Your task to perform on an android device: add a contact in the contacts app Image 0: 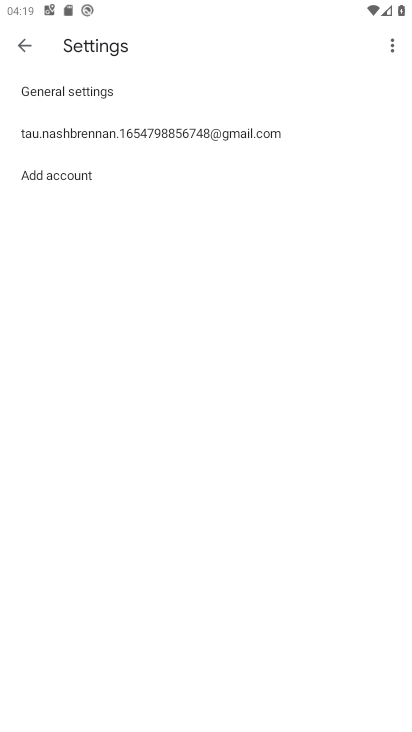
Step 0: press home button
Your task to perform on an android device: add a contact in the contacts app Image 1: 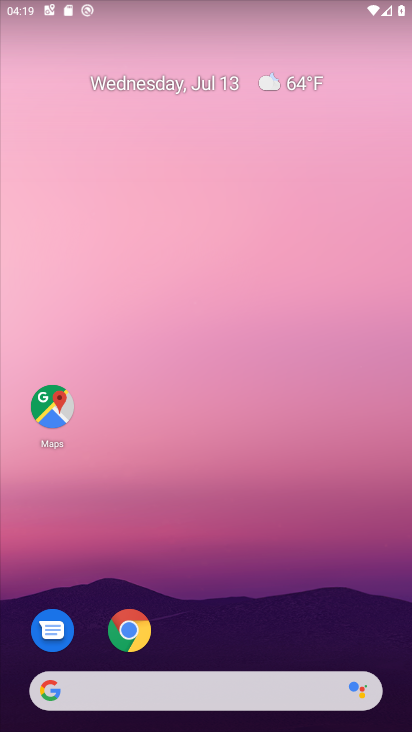
Step 1: drag from (175, 655) to (262, 104)
Your task to perform on an android device: add a contact in the contacts app Image 2: 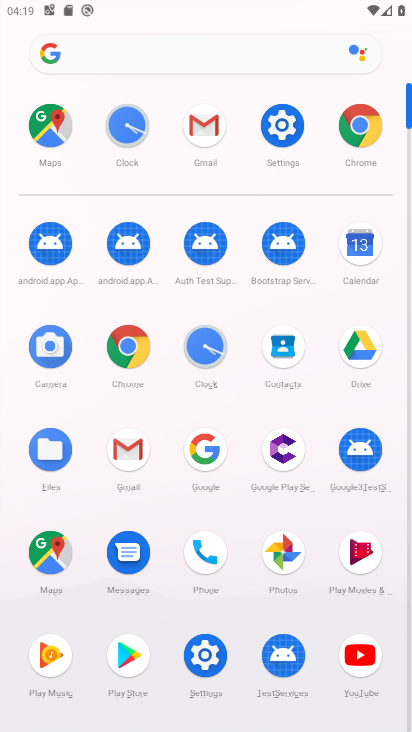
Step 2: click (289, 353)
Your task to perform on an android device: add a contact in the contacts app Image 3: 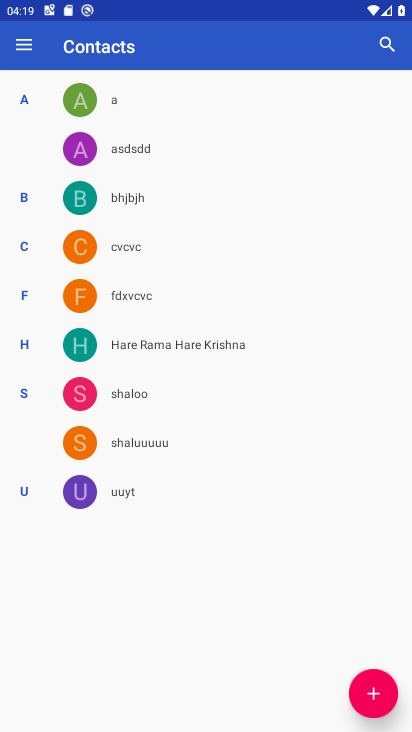
Step 3: click (363, 685)
Your task to perform on an android device: add a contact in the contacts app Image 4: 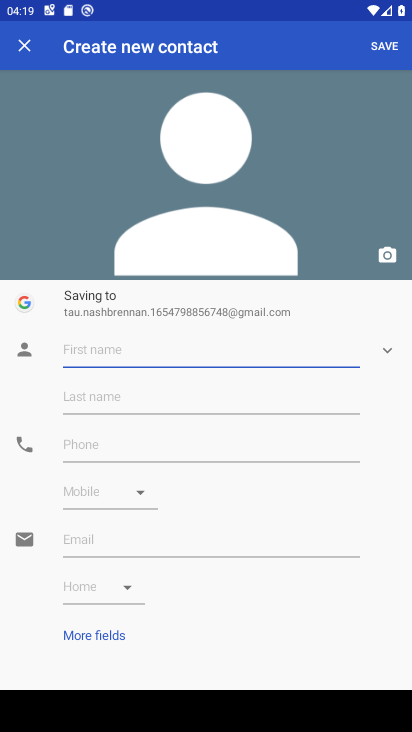
Step 4: type "radhe radhe"
Your task to perform on an android device: add a contact in the contacts app Image 5: 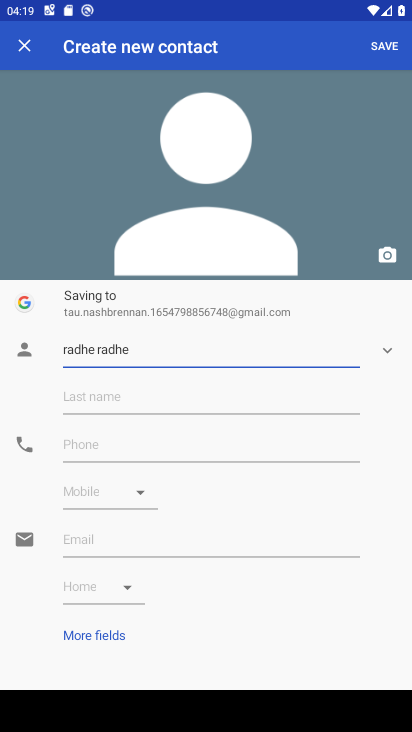
Step 5: click (104, 448)
Your task to perform on an android device: add a contact in the contacts app Image 6: 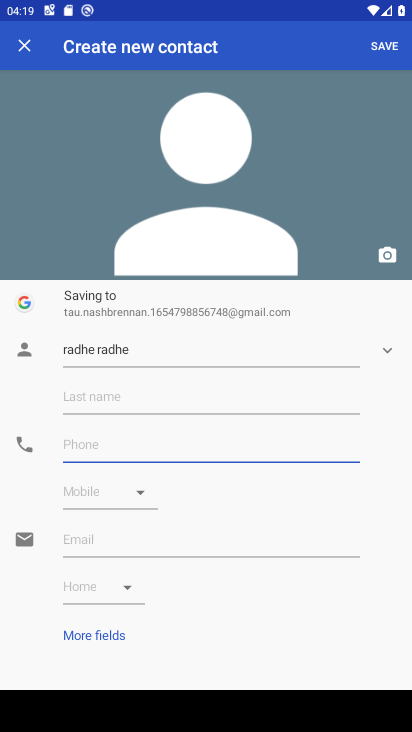
Step 6: type "87654345678"
Your task to perform on an android device: add a contact in the contacts app Image 7: 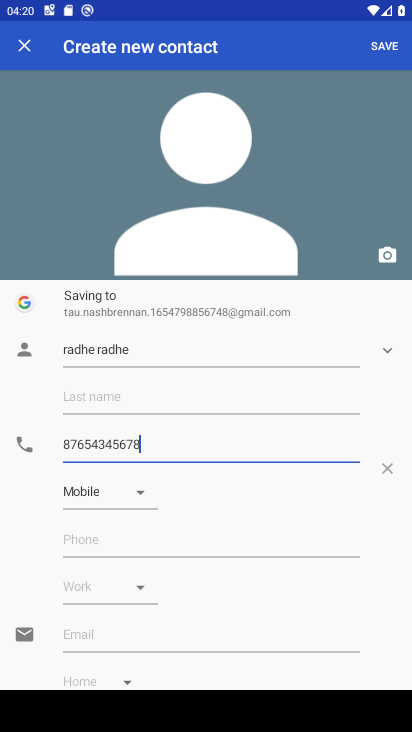
Step 7: click (404, 46)
Your task to perform on an android device: add a contact in the contacts app Image 8: 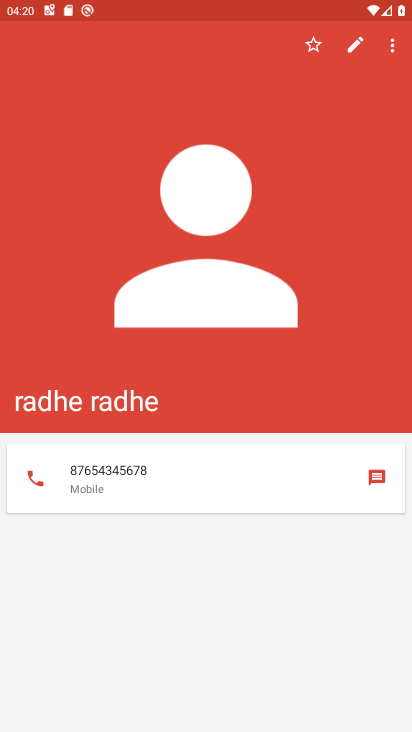
Step 8: task complete